Your task to perform on an android device: empty trash in the gmail app Image 0: 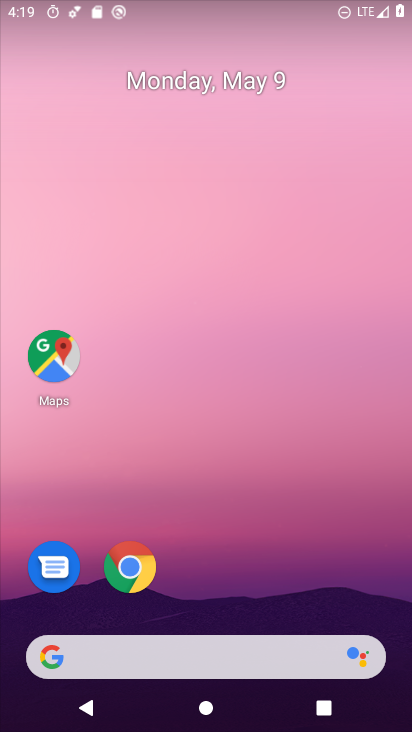
Step 0: drag from (246, 597) to (203, 177)
Your task to perform on an android device: empty trash in the gmail app Image 1: 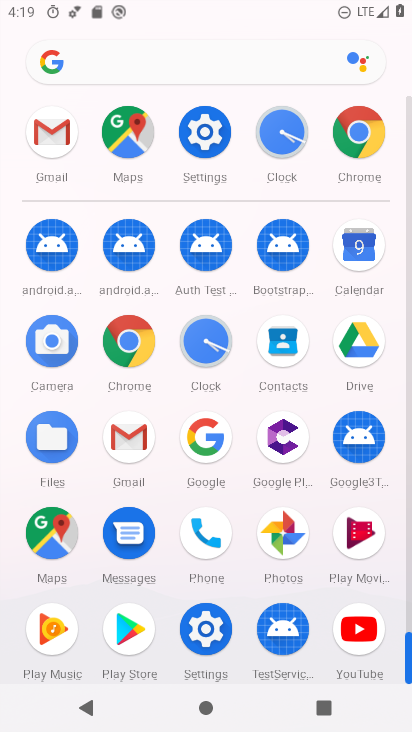
Step 1: click (125, 432)
Your task to perform on an android device: empty trash in the gmail app Image 2: 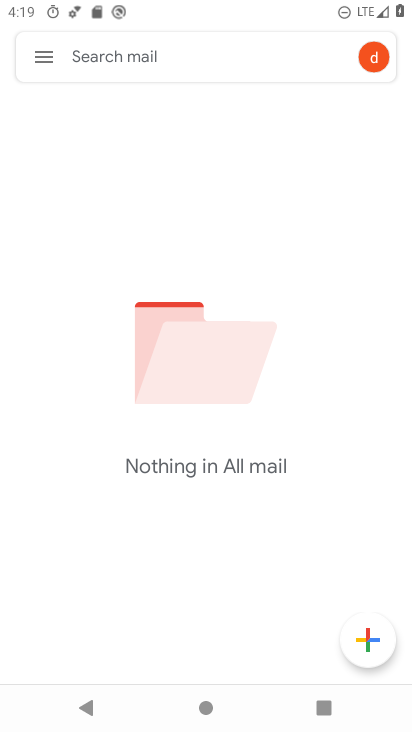
Step 2: click (42, 48)
Your task to perform on an android device: empty trash in the gmail app Image 3: 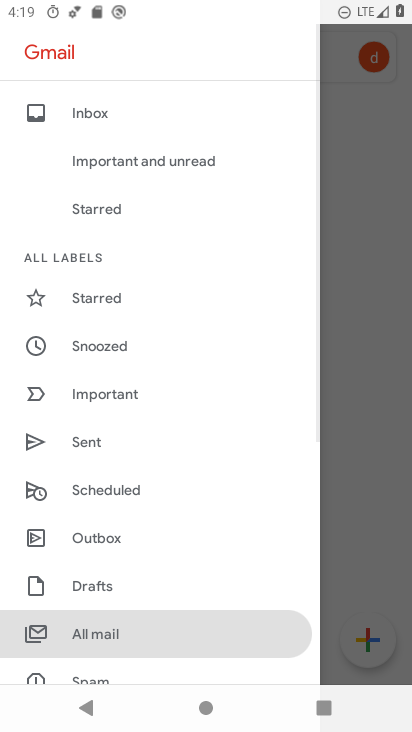
Step 3: drag from (170, 627) to (184, 185)
Your task to perform on an android device: empty trash in the gmail app Image 4: 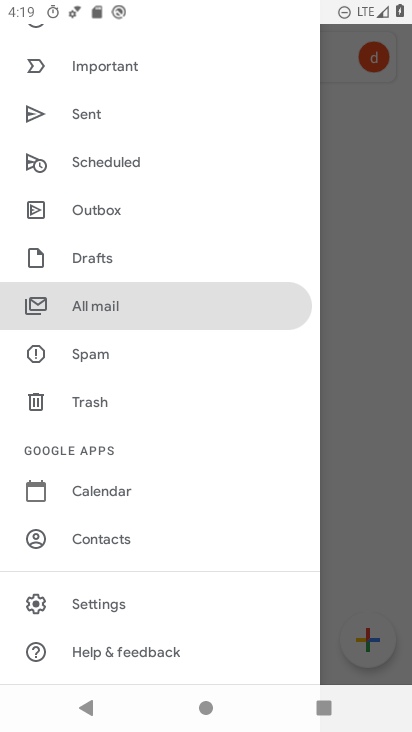
Step 4: click (137, 399)
Your task to perform on an android device: empty trash in the gmail app Image 5: 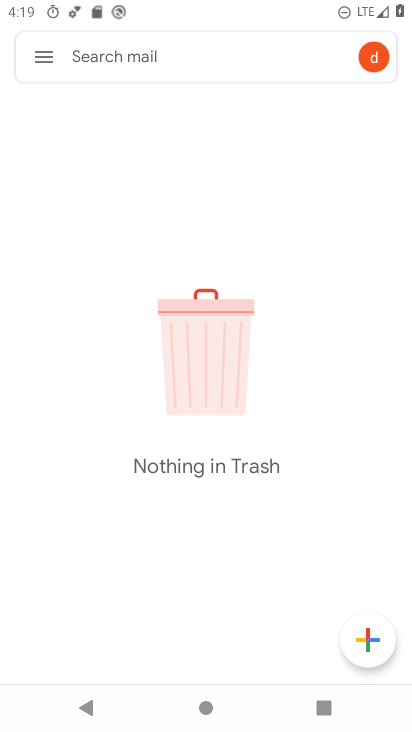
Step 5: task complete